Your task to perform on an android device: refresh tabs in the chrome app Image 0: 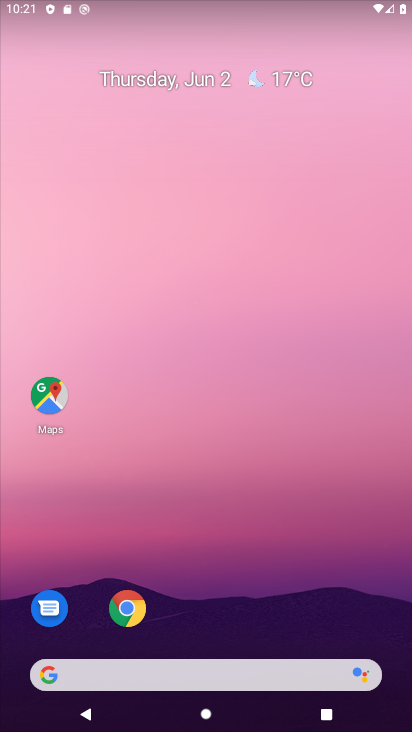
Step 0: drag from (281, 589) to (213, 112)
Your task to perform on an android device: refresh tabs in the chrome app Image 1: 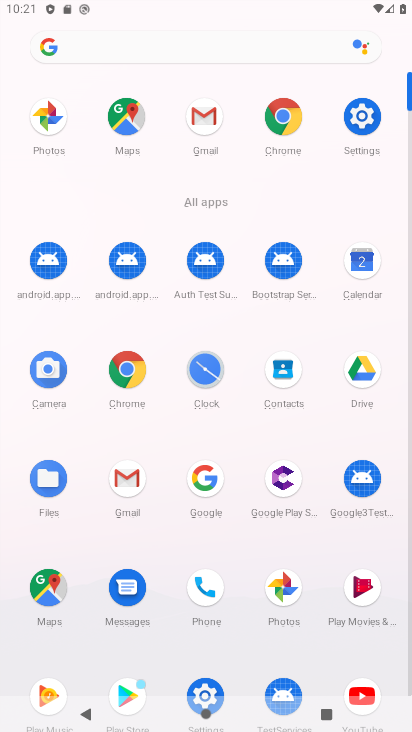
Step 1: click (296, 109)
Your task to perform on an android device: refresh tabs in the chrome app Image 2: 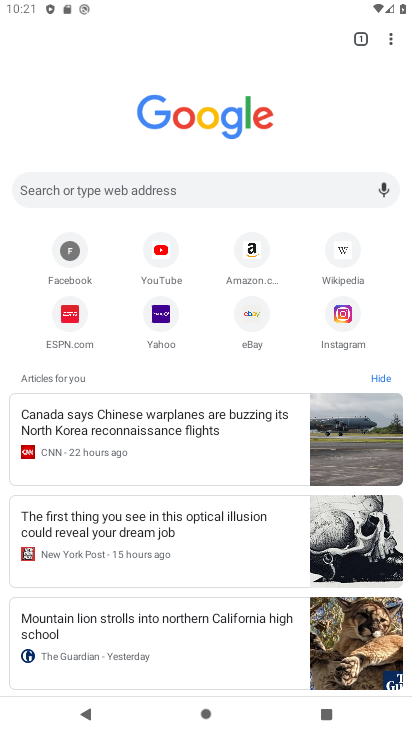
Step 2: click (390, 30)
Your task to perform on an android device: refresh tabs in the chrome app Image 3: 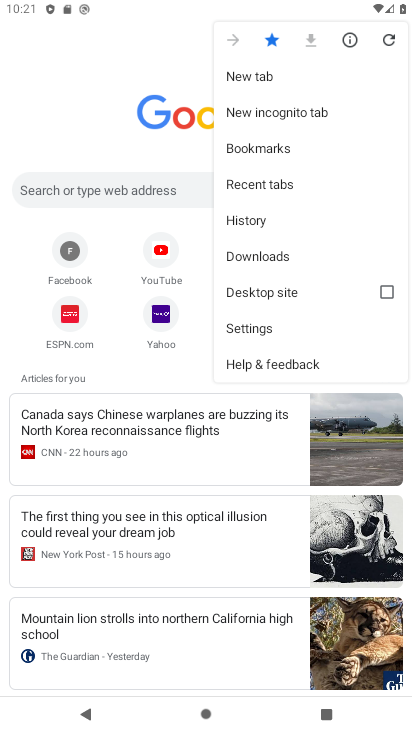
Step 3: click (390, 30)
Your task to perform on an android device: refresh tabs in the chrome app Image 4: 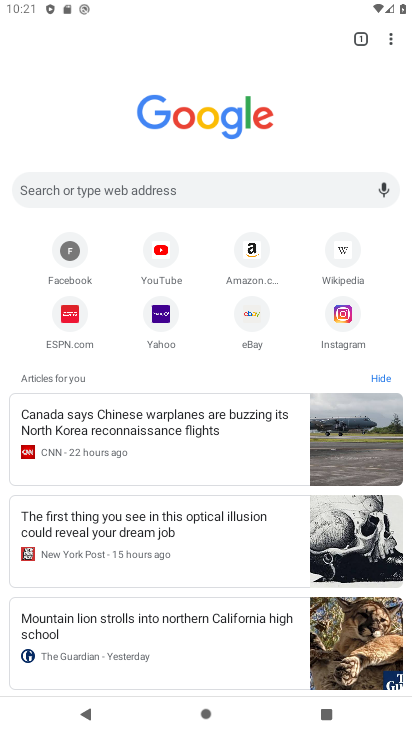
Step 4: task complete